Your task to perform on an android device: stop showing notifications on the lock screen Image 0: 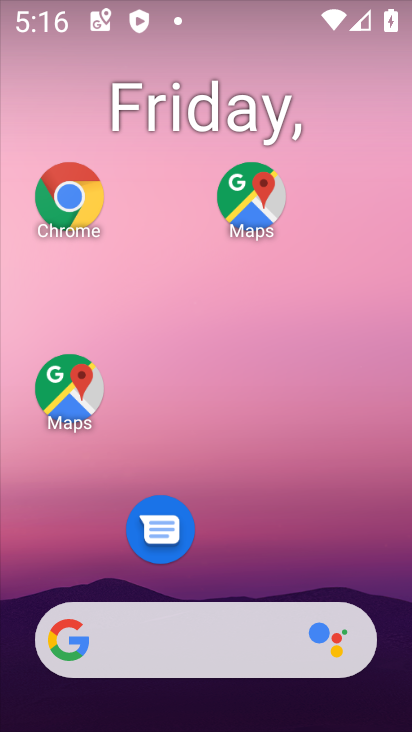
Step 0: drag from (264, 549) to (236, 59)
Your task to perform on an android device: stop showing notifications on the lock screen Image 1: 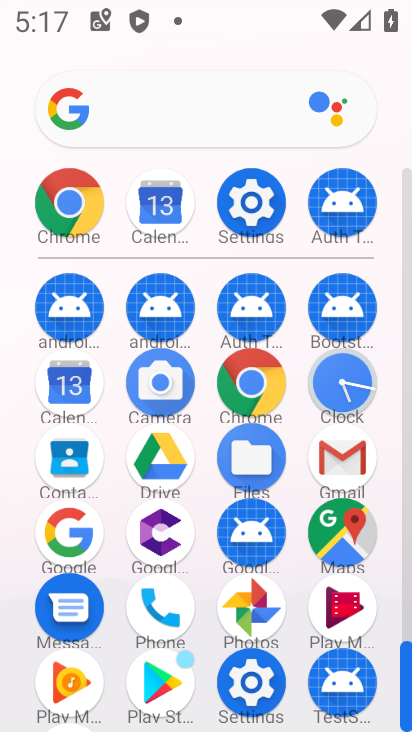
Step 1: click (247, 220)
Your task to perform on an android device: stop showing notifications on the lock screen Image 2: 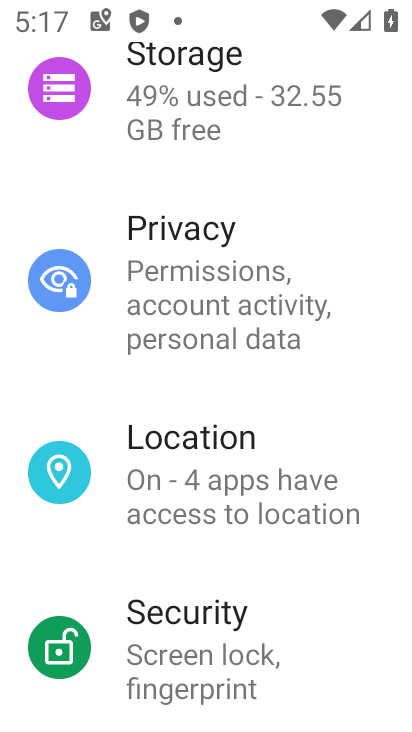
Step 2: drag from (239, 653) to (241, 323)
Your task to perform on an android device: stop showing notifications on the lock screen Image 3: 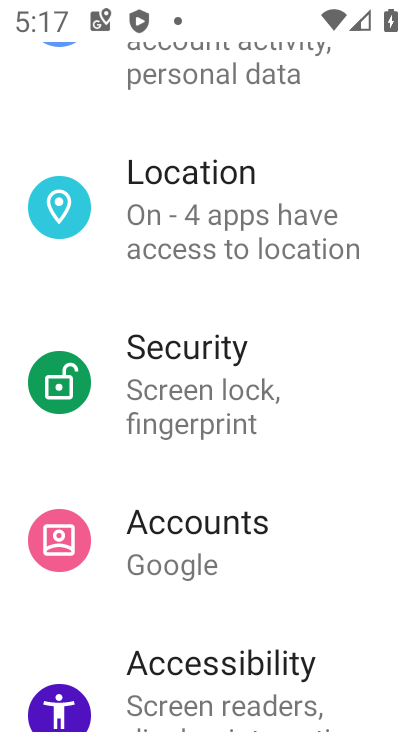
Step 3: drag from (260, 214) to (252, 724)
Your task to perform on an android device: stop showing notifications on the lock screen Image 4: 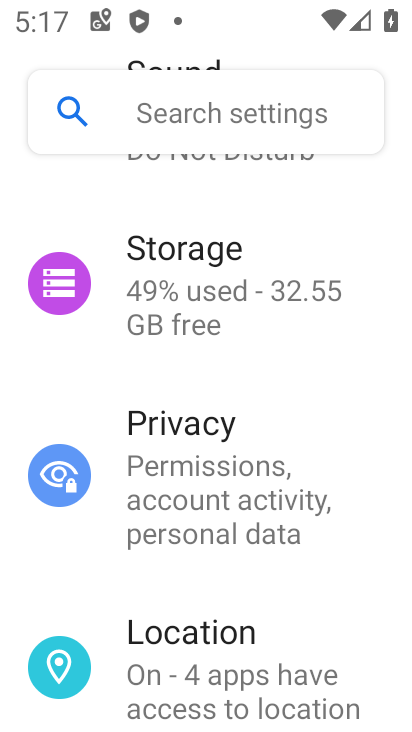
Step 4: drag from (283, 399) to (226, 731)
Your task to perform on an android device: stop showing notifications on the lock screen Image 5: 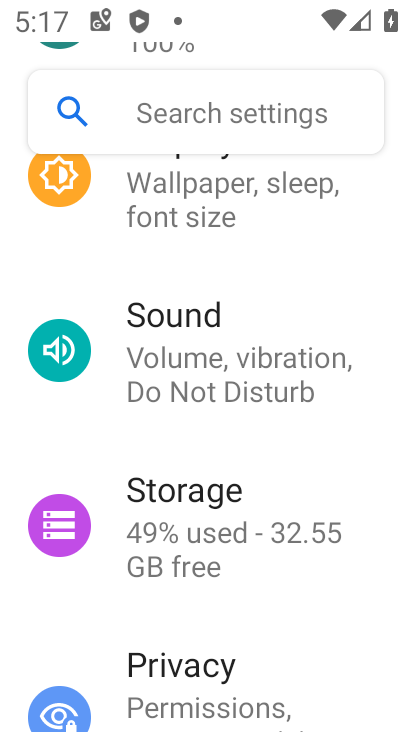
Step 5: drag from (219, 454) to (255, 731)
Your task to perform on an android device: stop showing notifications on the lock screen Image 6: 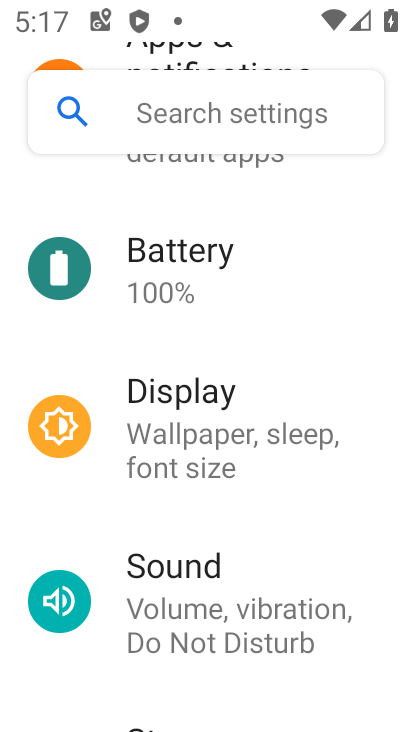
Step 6: drag from (261, 463) to (283, 727)
Your task to perform on an android device: stop showing notifications on the lock screen Image 7: 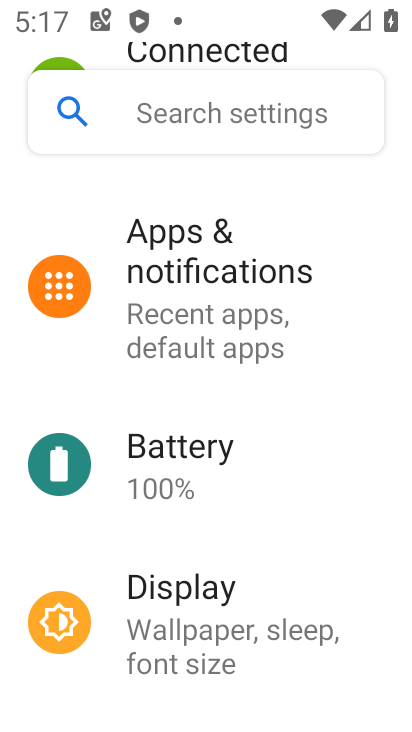
Step 7: click (216, 289)
Your task to perform on an android device: stop showing notifications on the lock screen Image 8: 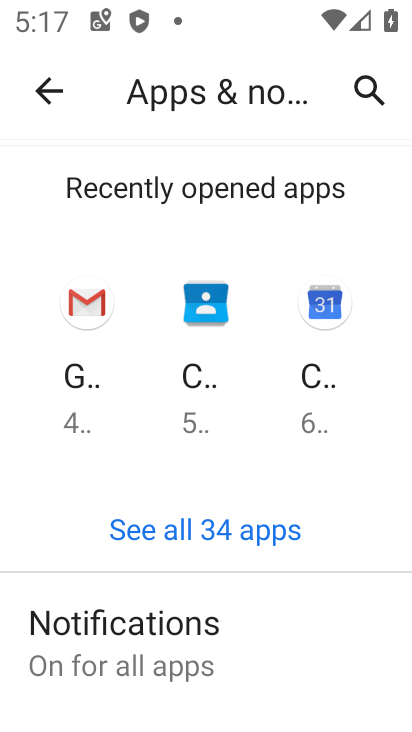
Step 8: click (124, 647)
Your task to perform on an android device: stop showing notifications on the lock screen Image 9: 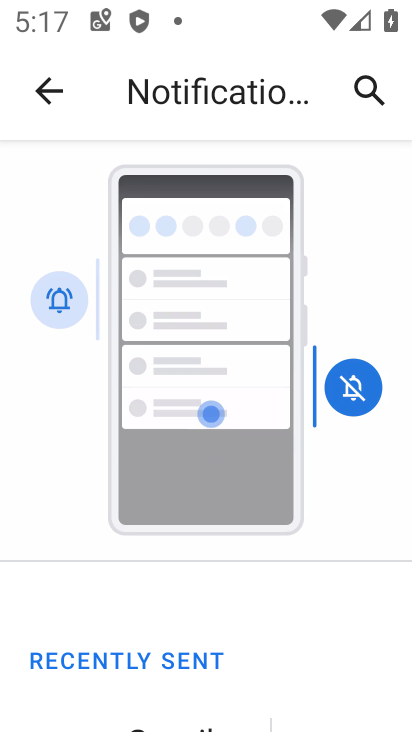
Step 9: drag from (213, 674) to (258, 289)
Your task to perform on an android device: stop showing notifications on the lock screen Image 10: 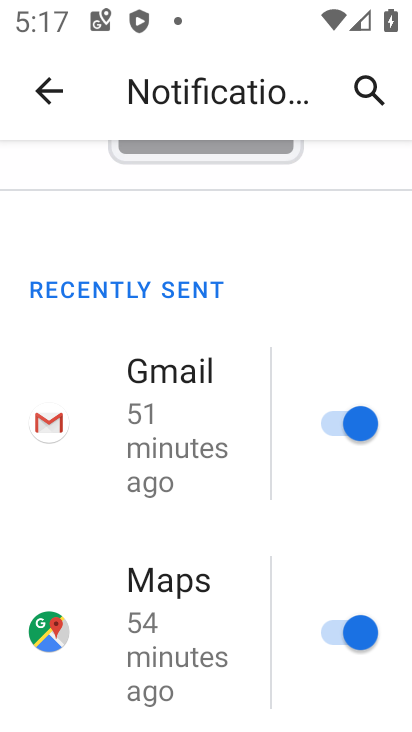
Step 10: drag from (247, 485) to (254, 325)
Your task to perform on an android device: stop showing notifications on the lock screen Image 11: 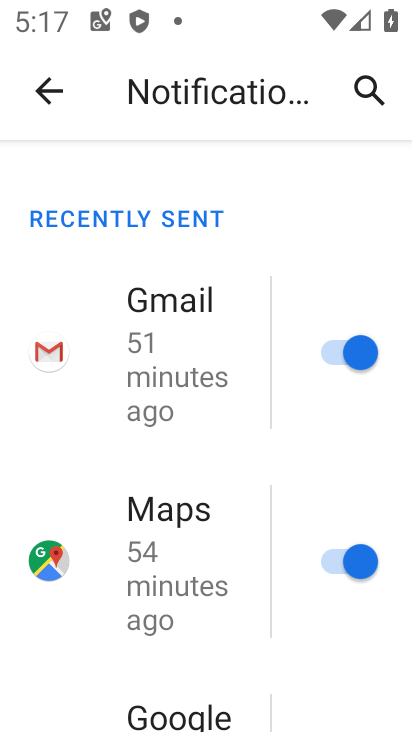
Step 11: drag from (174, 665) to (231, 276)
Your task to perform on an android device: stop showing notifications on the lock screen Image 12: 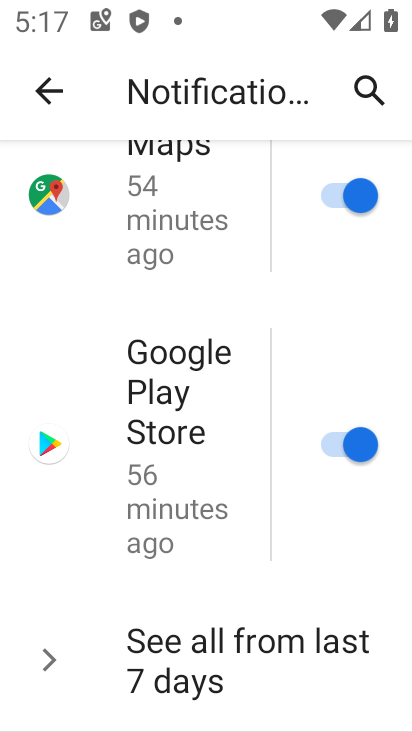
Step 12: drag from (222, 657) to (253, 284)
Your task to perform on an android device: stop showing notifications on the lock screen Image 13: 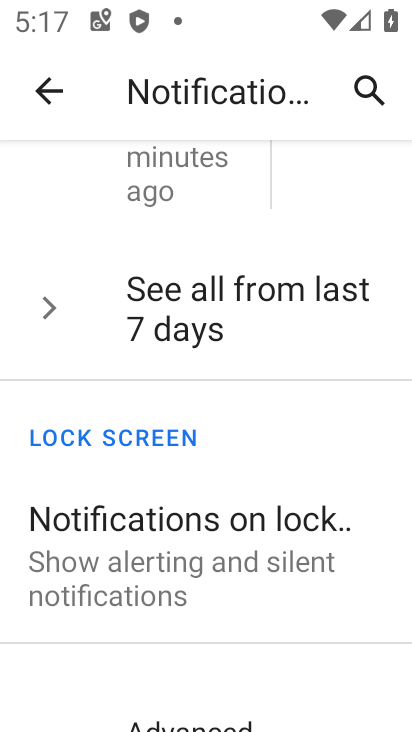
Step 13: click (187, 566)
Your task to perform on an android device: stop showing notifications on the lock screen Image 14: 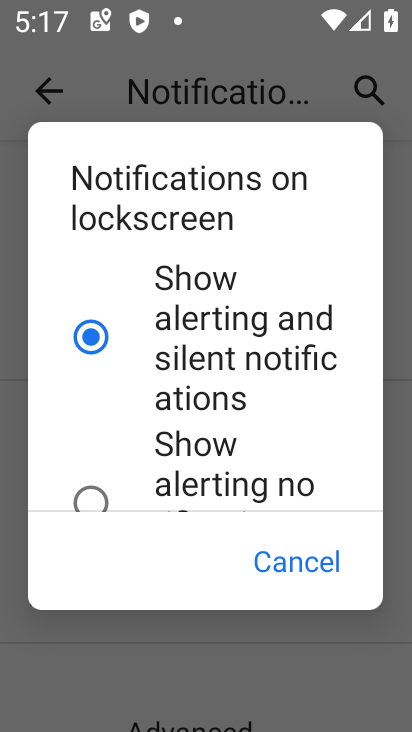
Step 14: click (90, 506)
Your task to perform on an android device: stop showing notifications on the lock screen Image 15: 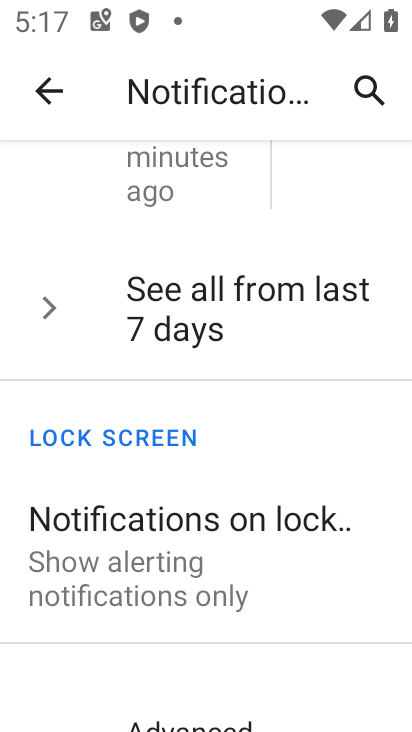
Step 15: click (134, 590)
Your task to perform on an android device: stop showing notifications on the lock screen Image 16: 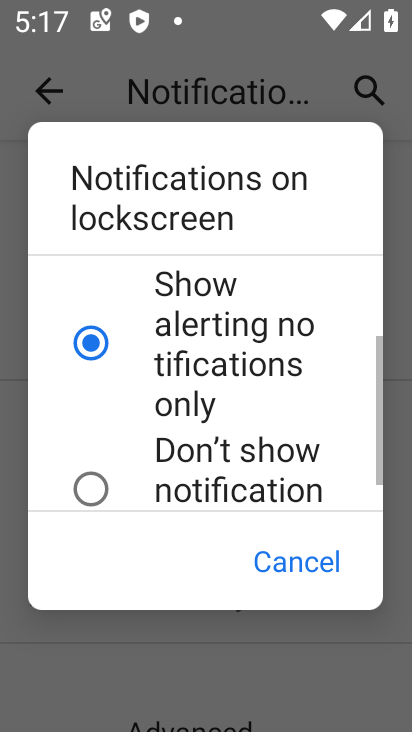
Step 16: task complete